Your task to perform on an android device: see tabs open on other devices in the chrome app Image 0: 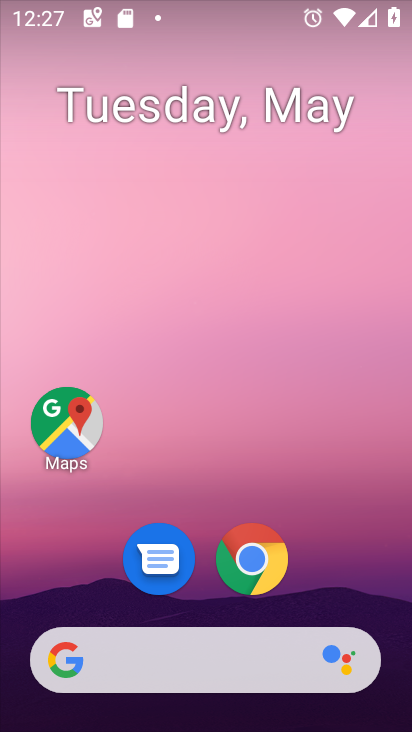
Step 0: click (264, 572)
Your task to perform on an android device: see tabs open on other devices in the chrome app Image 1: 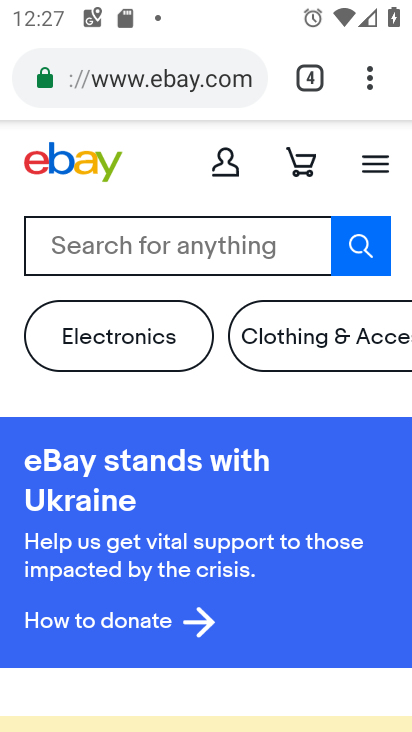
Step 1: click (381, 77)
Your task to perform on an android device: see tabs open on other devices in the chrome app Image 2: 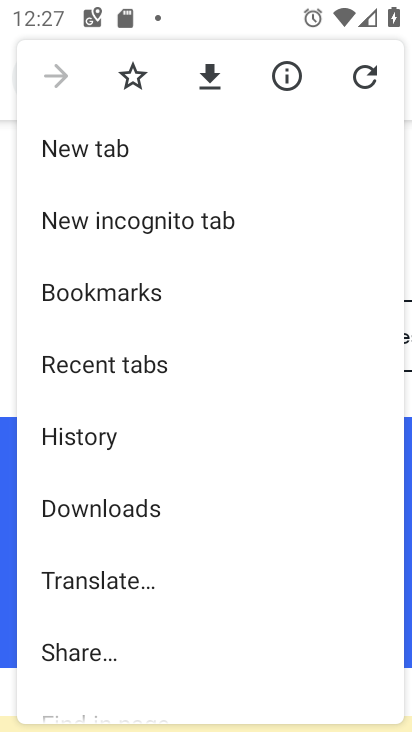
Step 2: click (186, 377)
Your task to perform on an android device: see tabs open on other devices in the chrome app Image 3: 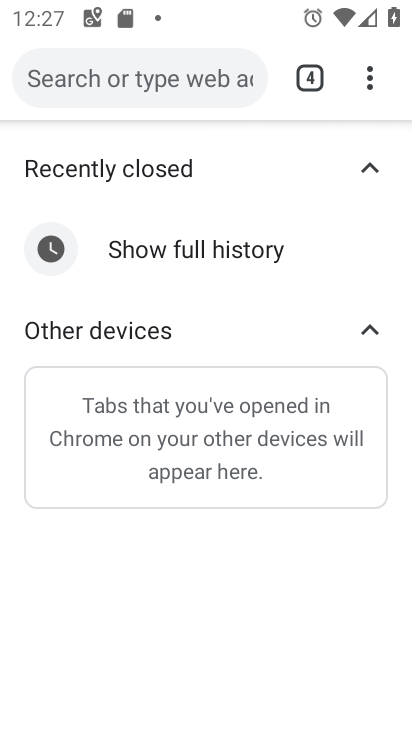
Step 3: task complete